Your task to perform on an android device: Search for macbook pro on walmart, select the first entry, add it to the cart, then select checkout. Image 0: 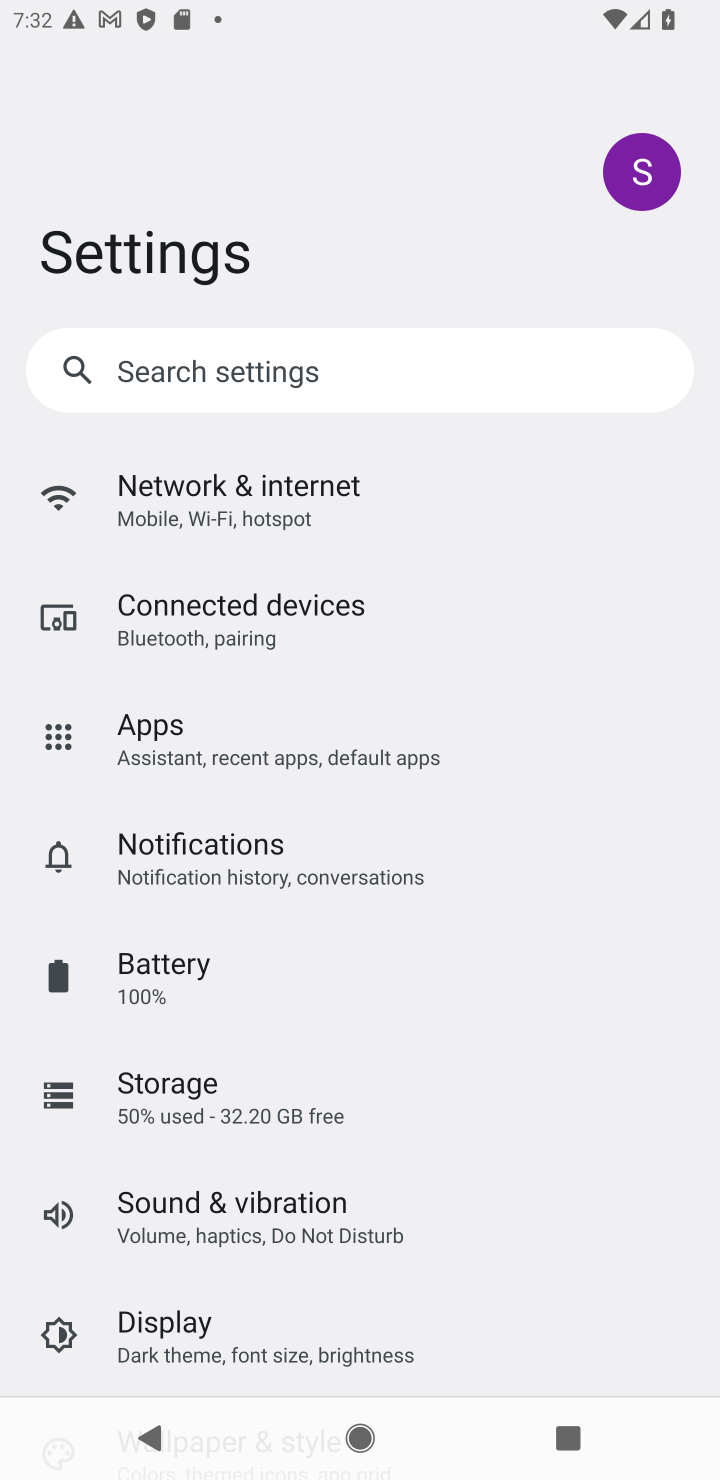
Step 0: press home button
Your task to perform on an android device: Search for macbook pro on walmart, select the first entry, add it to the cart, then select checkout. Image 1: 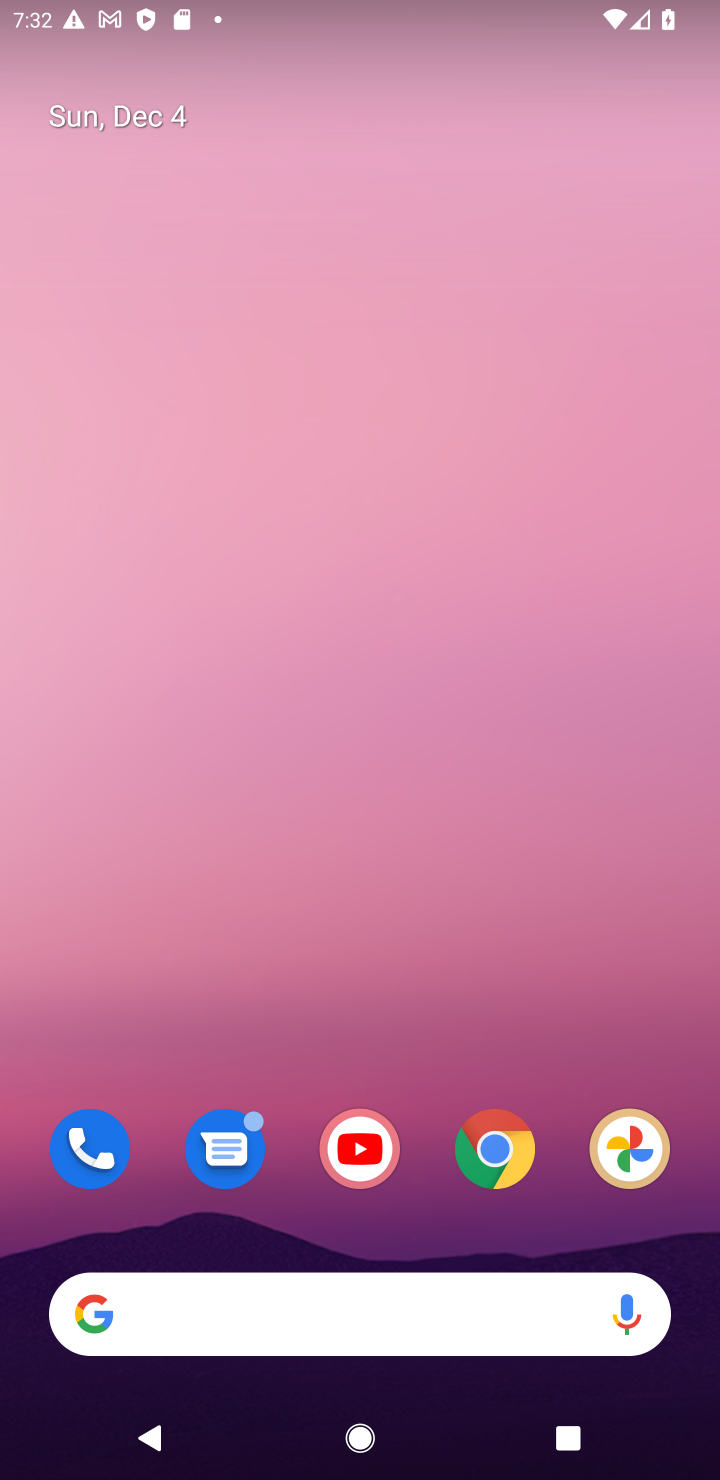
Step 1: drag from (463, 1112) to (414, 596)
Your task to perform on an android device: Search for macbook pro on walmart, select the first entry, add it to the cart, then select checkout. Image 2: 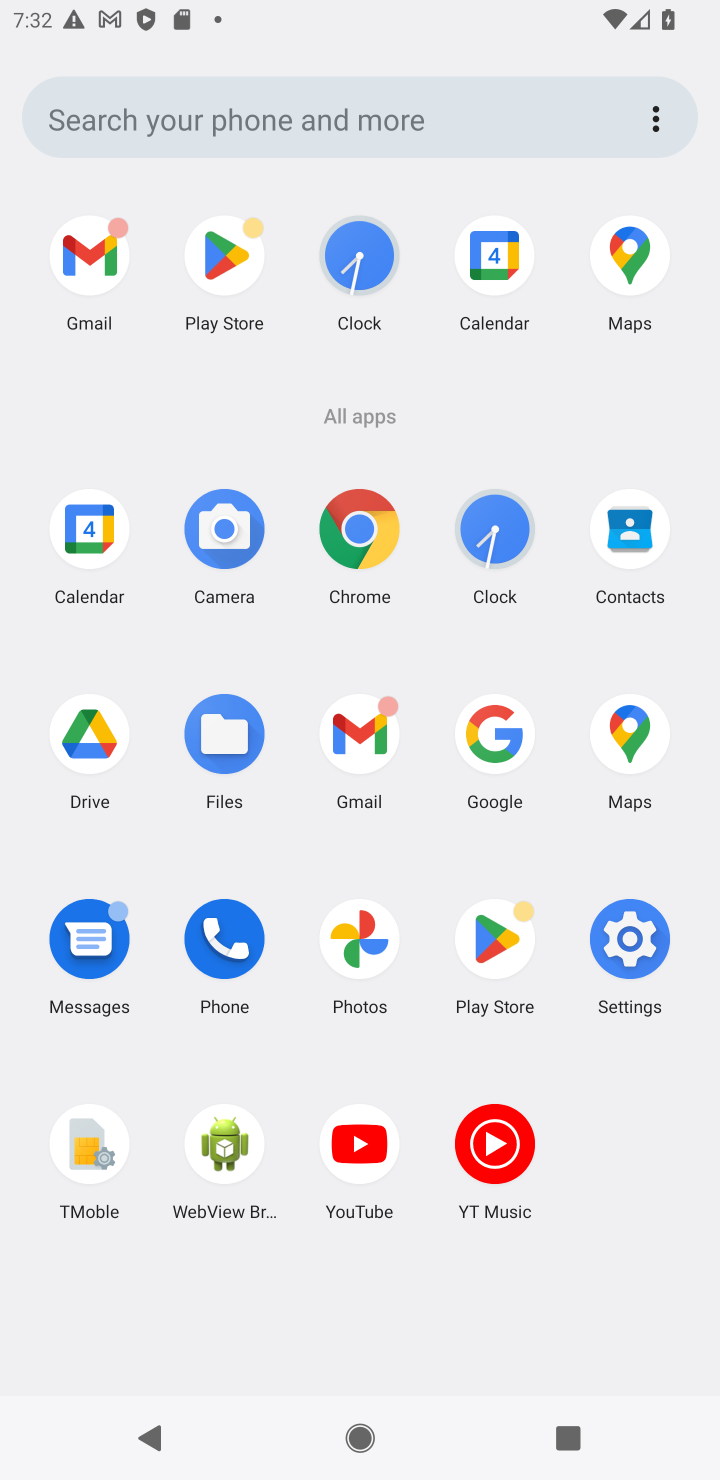
Step 2: click (500, 732)
Your task to perform on an android device: Search for macbook pro on walmart, select the first entry, add it to the cart, then select checkout. Image 3: 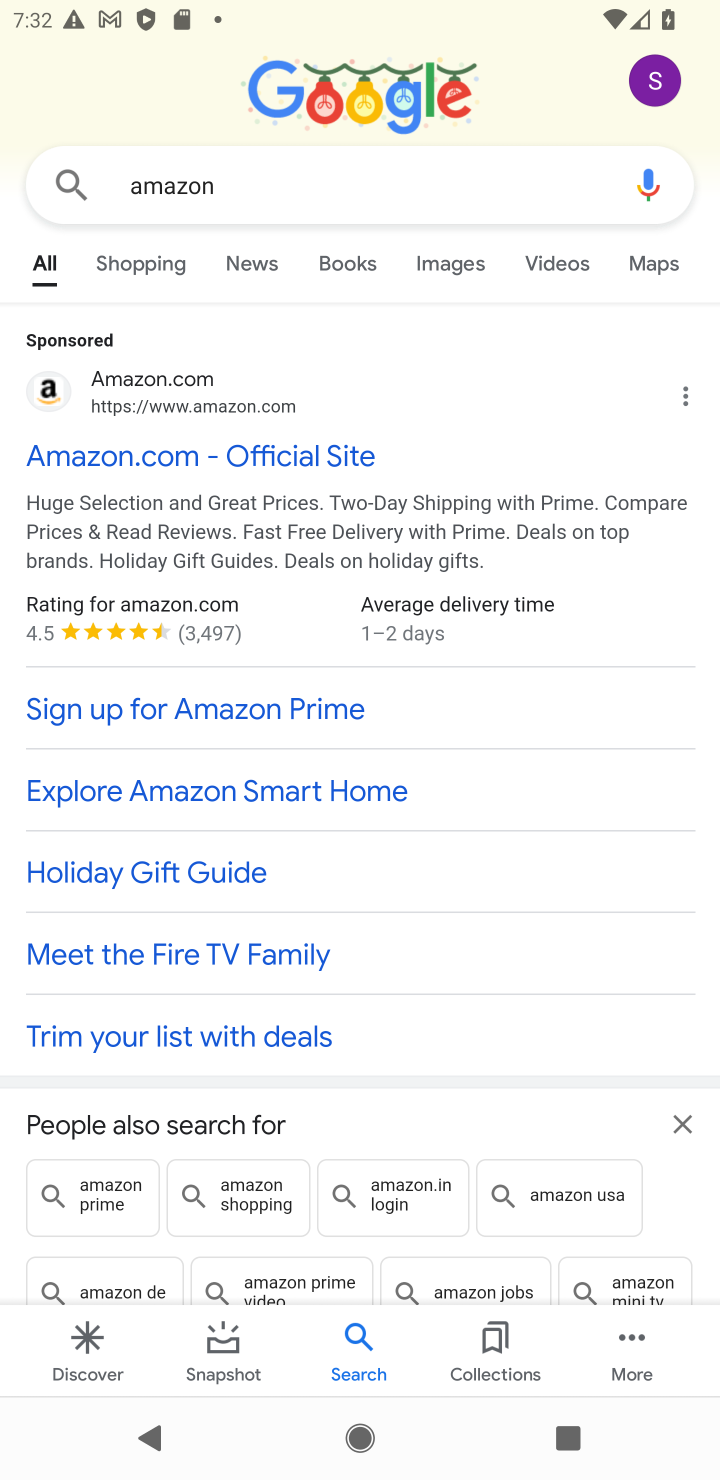
Step 3: click (299, 181)
Your task to perform on an android device: Search for macbook pro on walmart, select the first entry, add it to the cart, then select checkout. Image 4: 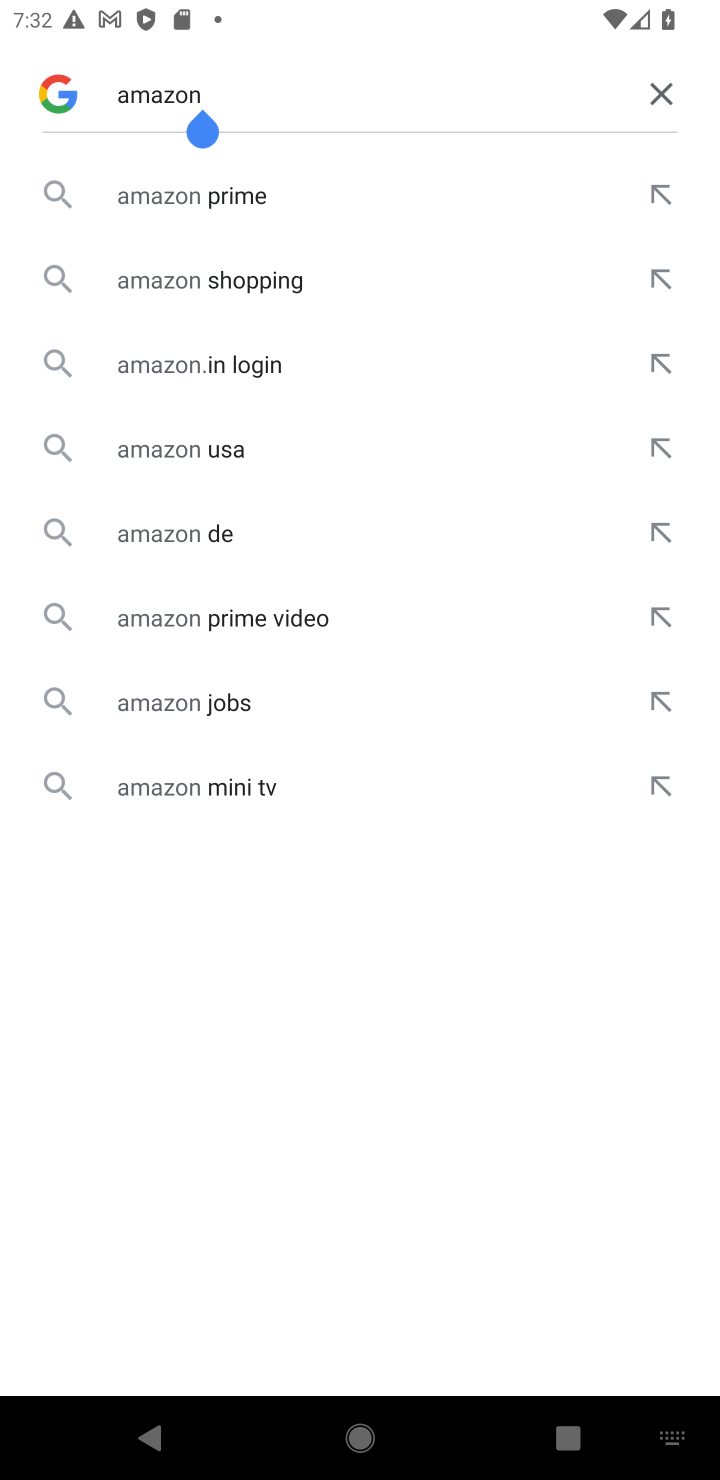
Step 4: click (659, 103)
Your task to perform on an android device: Search for macbook pro on walmart, select the first entry, add it to the cart, then select checkout. Image 5: 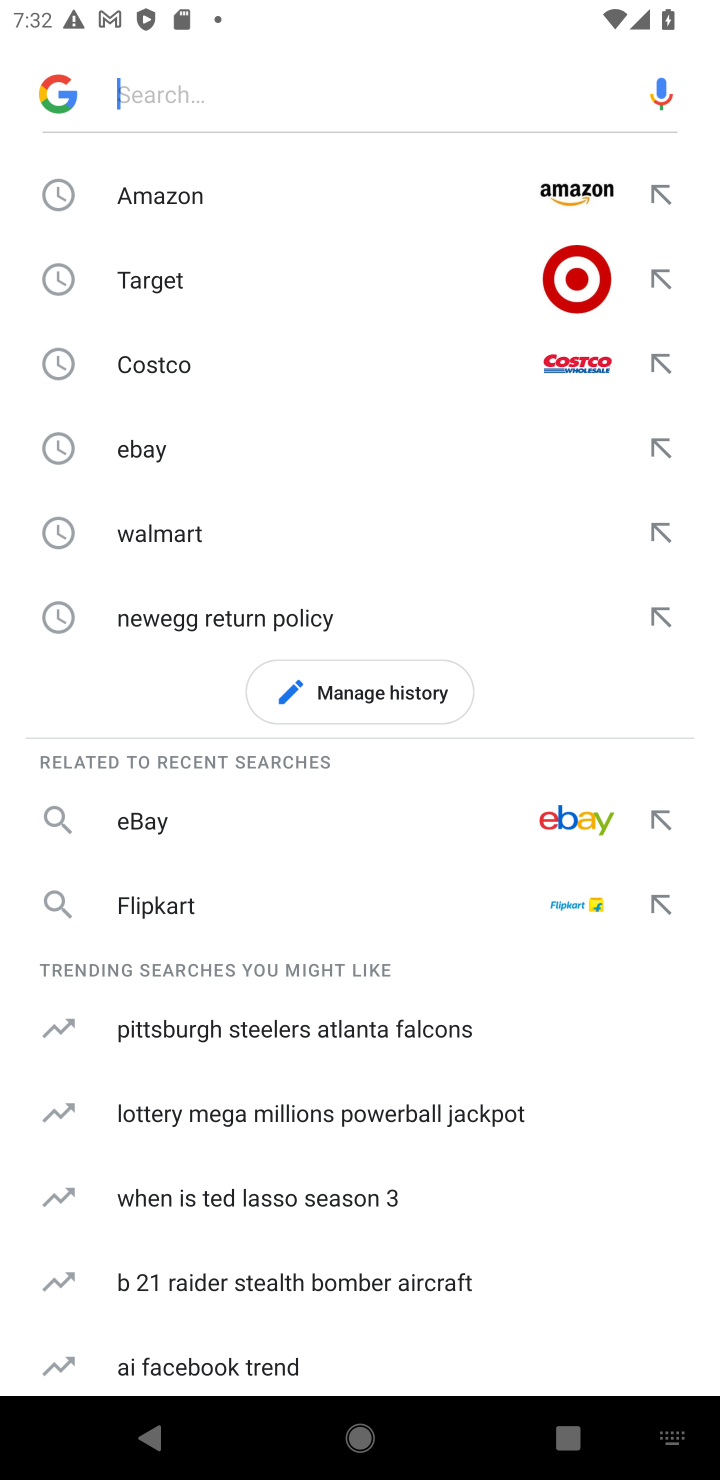
Step 5: click (159, 531)
Your task to perform on an android device: Search for macbook pro on walmart, select the first entry, add it to the cart, then select checkout. Image 6: 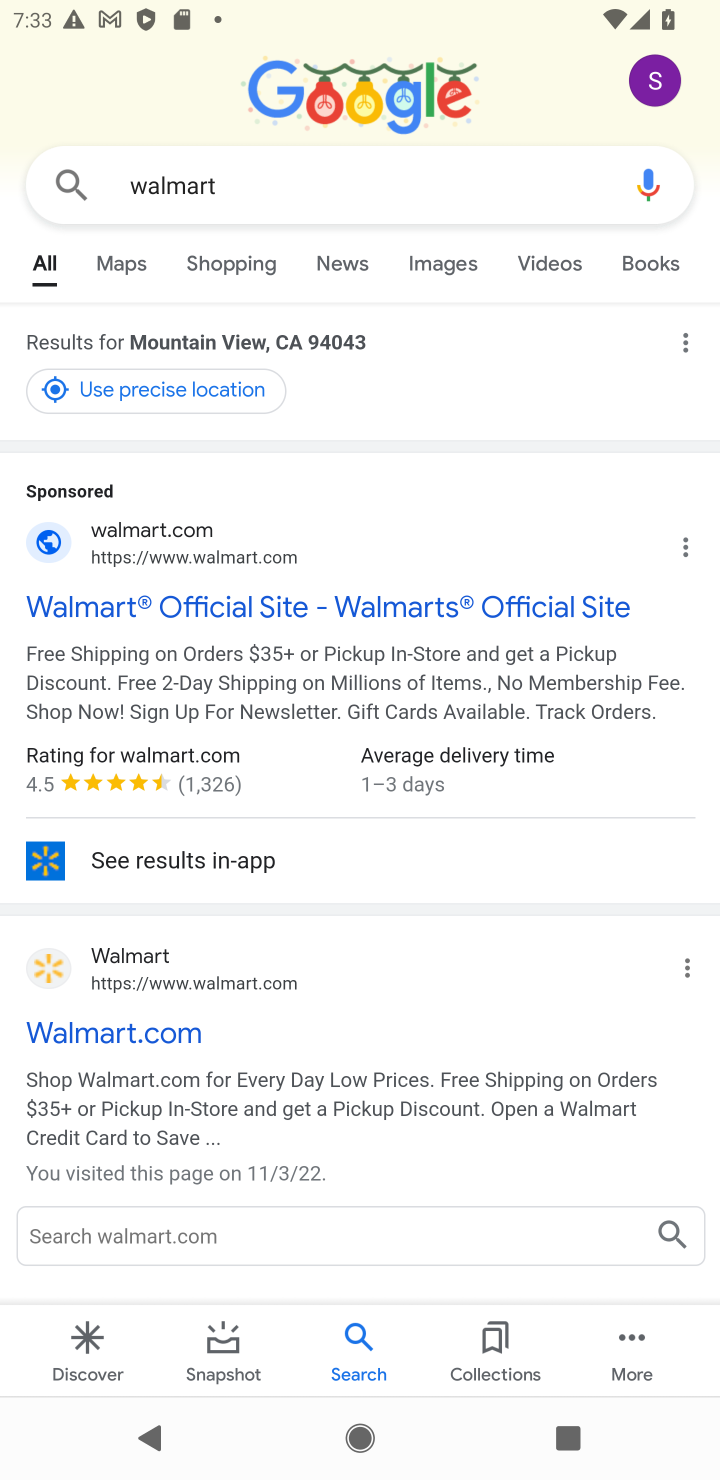
Step 6: click (239, 622)
Your task to perform on an android device: Search for macbook pro on walmart, select the first entry, add it to the cart, then select checkout. Image 7: 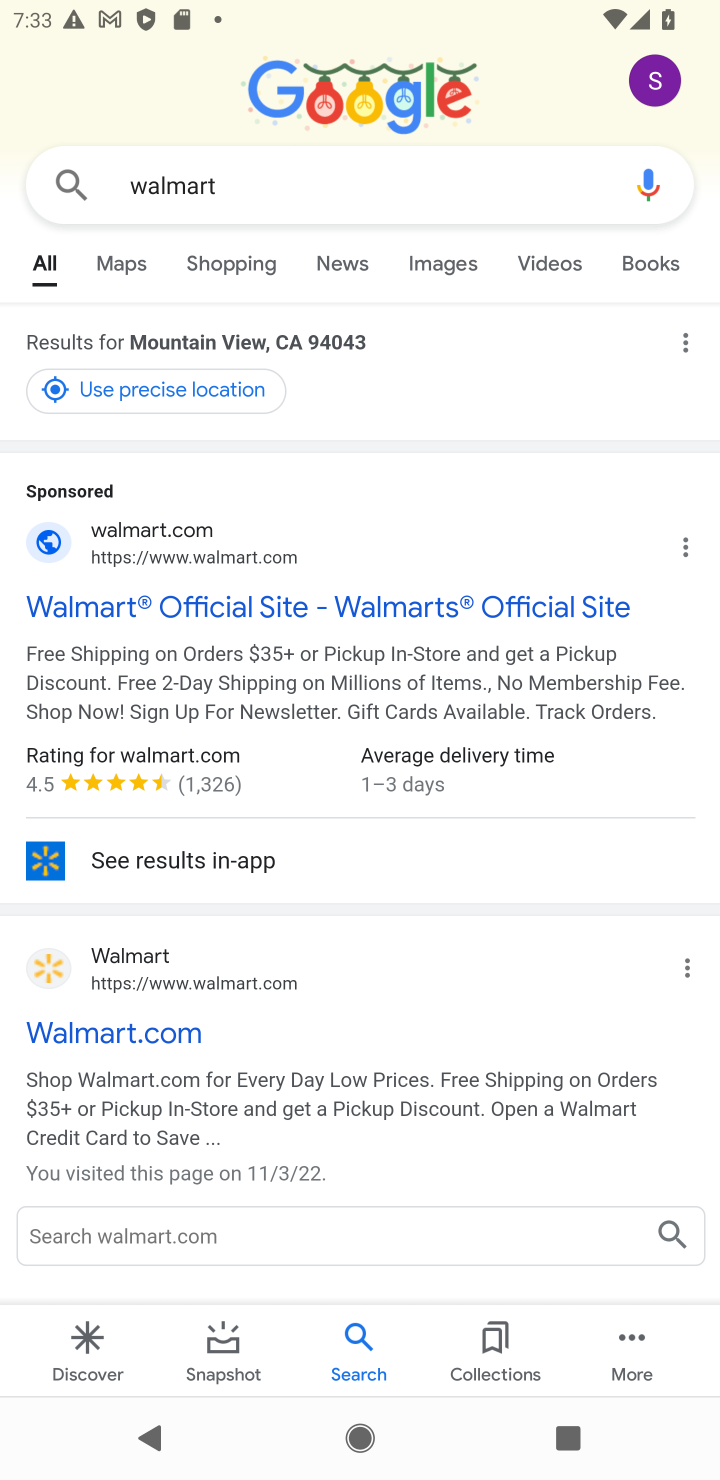
Step 7: click (110, 1035)
Your task to perform on an android device: Search for macbook pro on walmart, select the first entry, add it to the cart, then select checkout. Image 8: 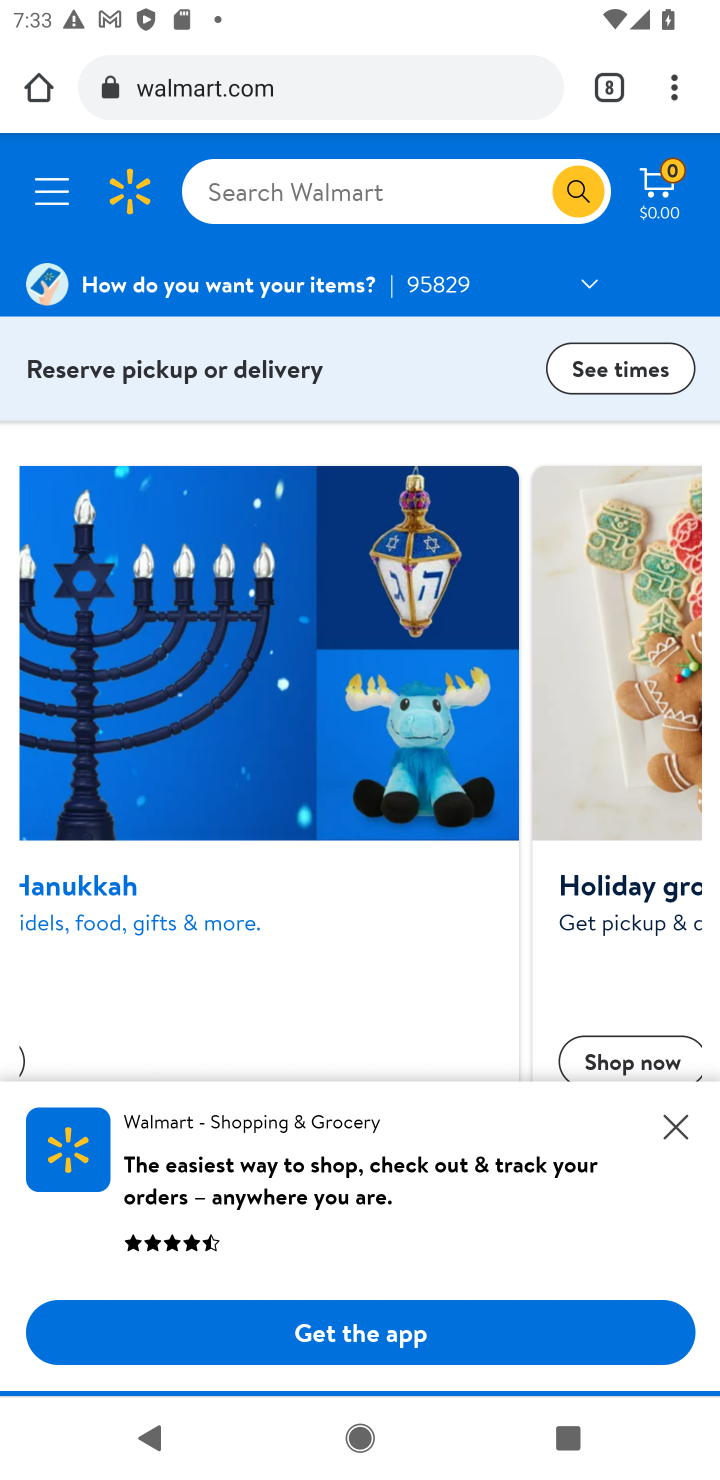
Step 8: click (282, 201)
Your task to perform on an android device: Search for macbook pro on walmart, select the first entry, add it to the cart, then select checkout. Image 9: 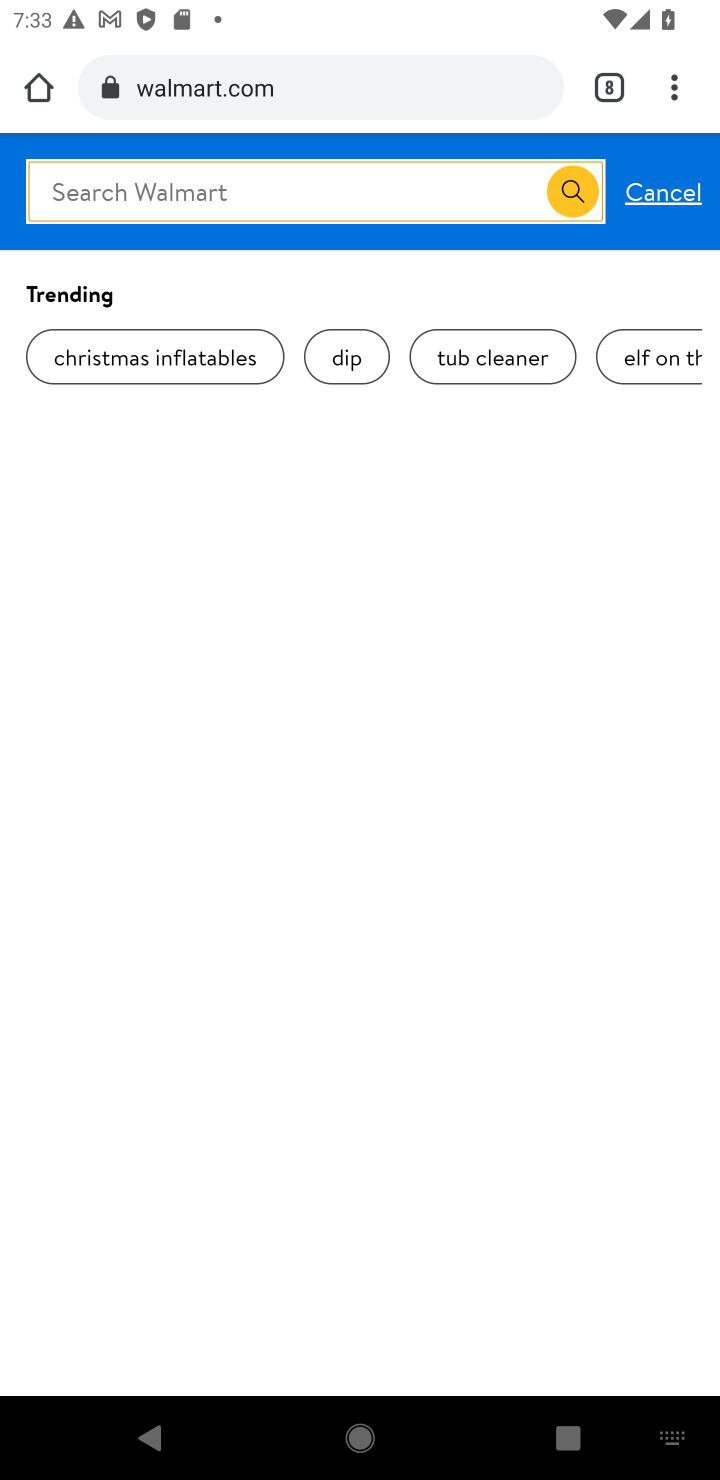
Step 9: type "macbook pro"
Your task to perform on an android device: Search for macbook pro on walmart, select the first entry, add it to the cart, then select checkout. Image 10: 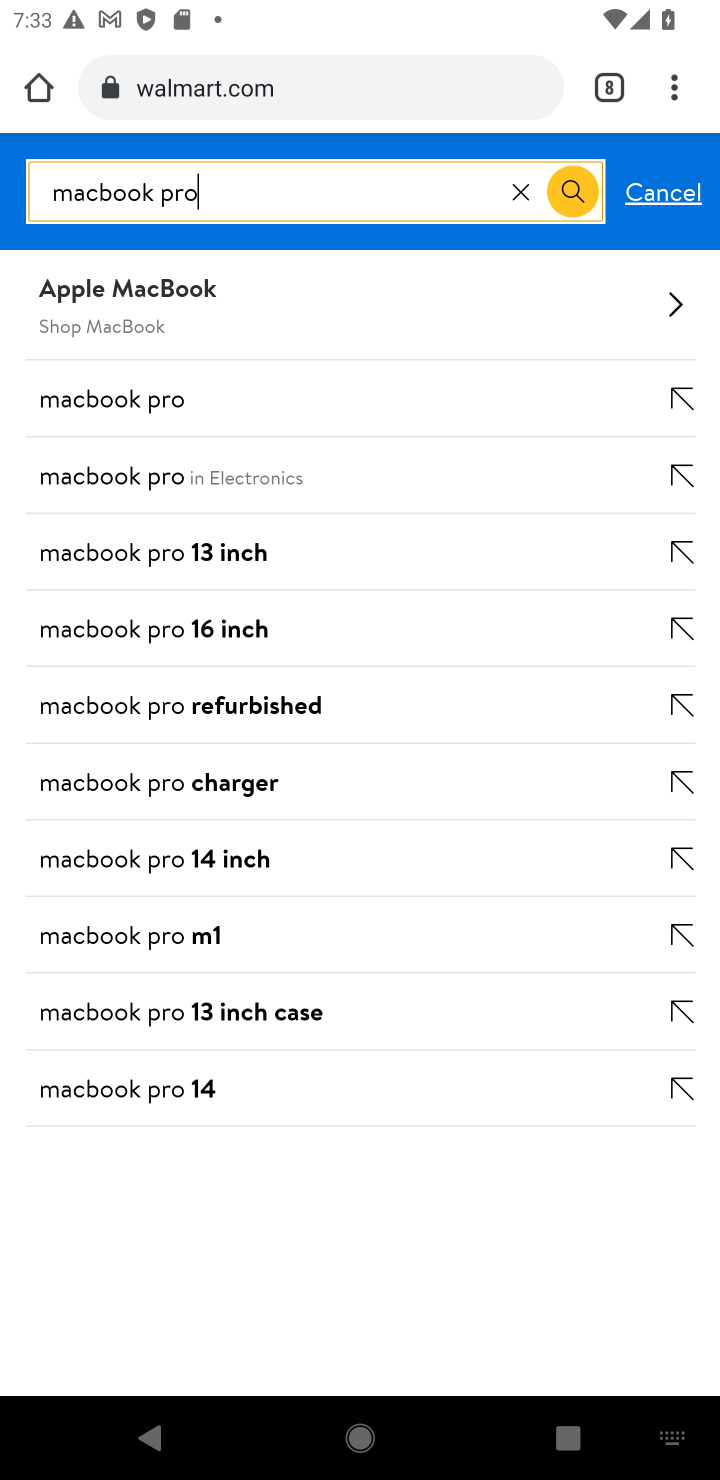
Step 10: click (151, 402)
Your task to perform on an android device: Search for macbook pro on walmart, select the first entry, add it to the cart, then select checkout. Image 11: 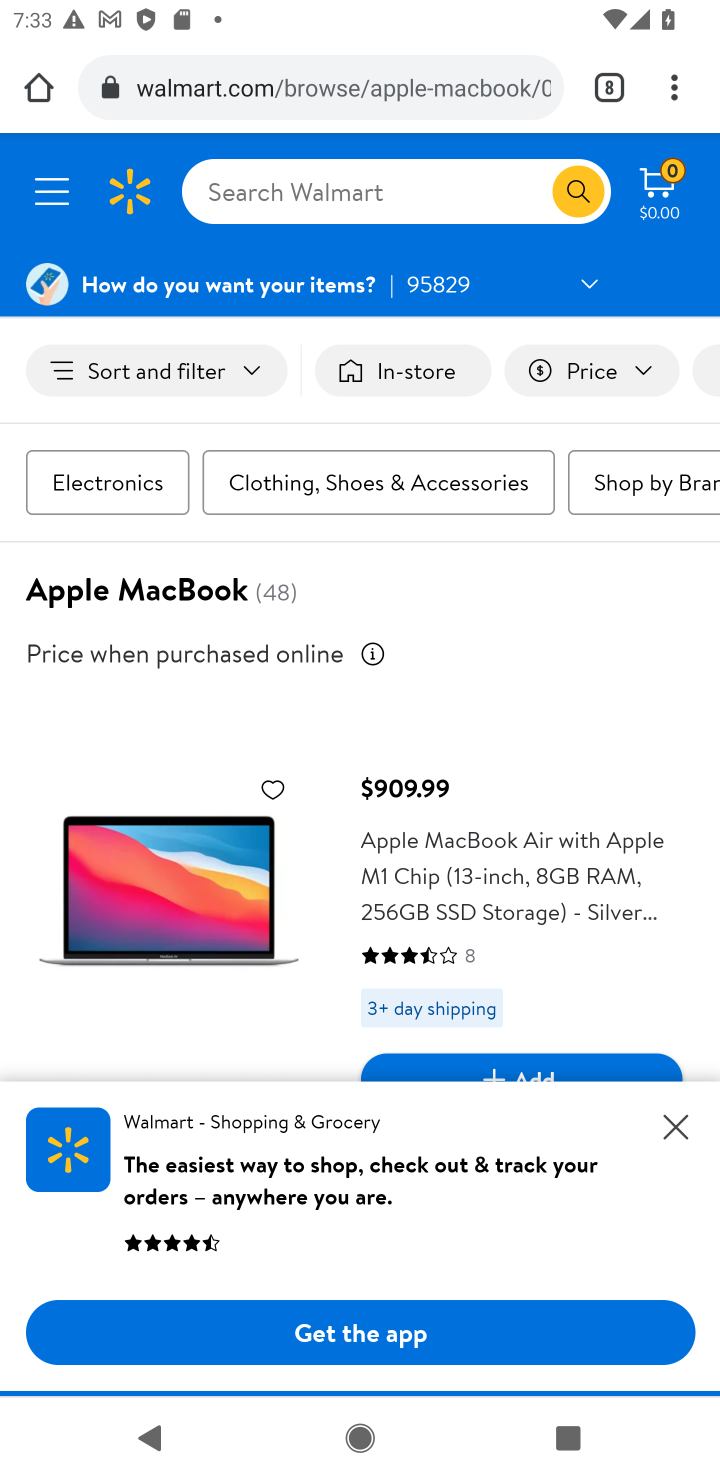
Step 11: drag from (485, 1026) to (436, 465)
Your task to perform on an android device: Search for macbook pro on walmart, select the first entry, add it to the cart, then select checkout. Image 12: 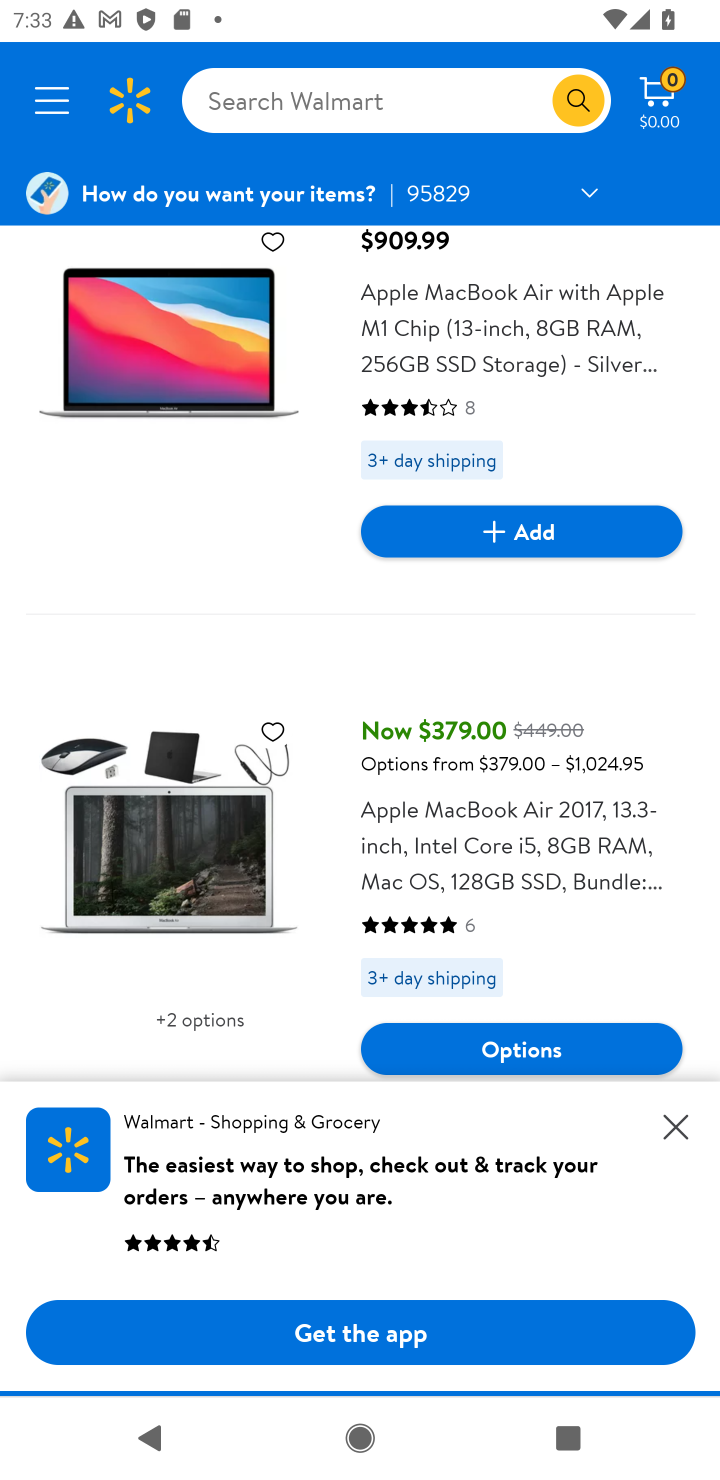
Step 12: click (505, 526)
Your task to perform on an android device: Search for macbook pro on walmart, select the first entry, add it to the cart, then select checkout. Image 13: 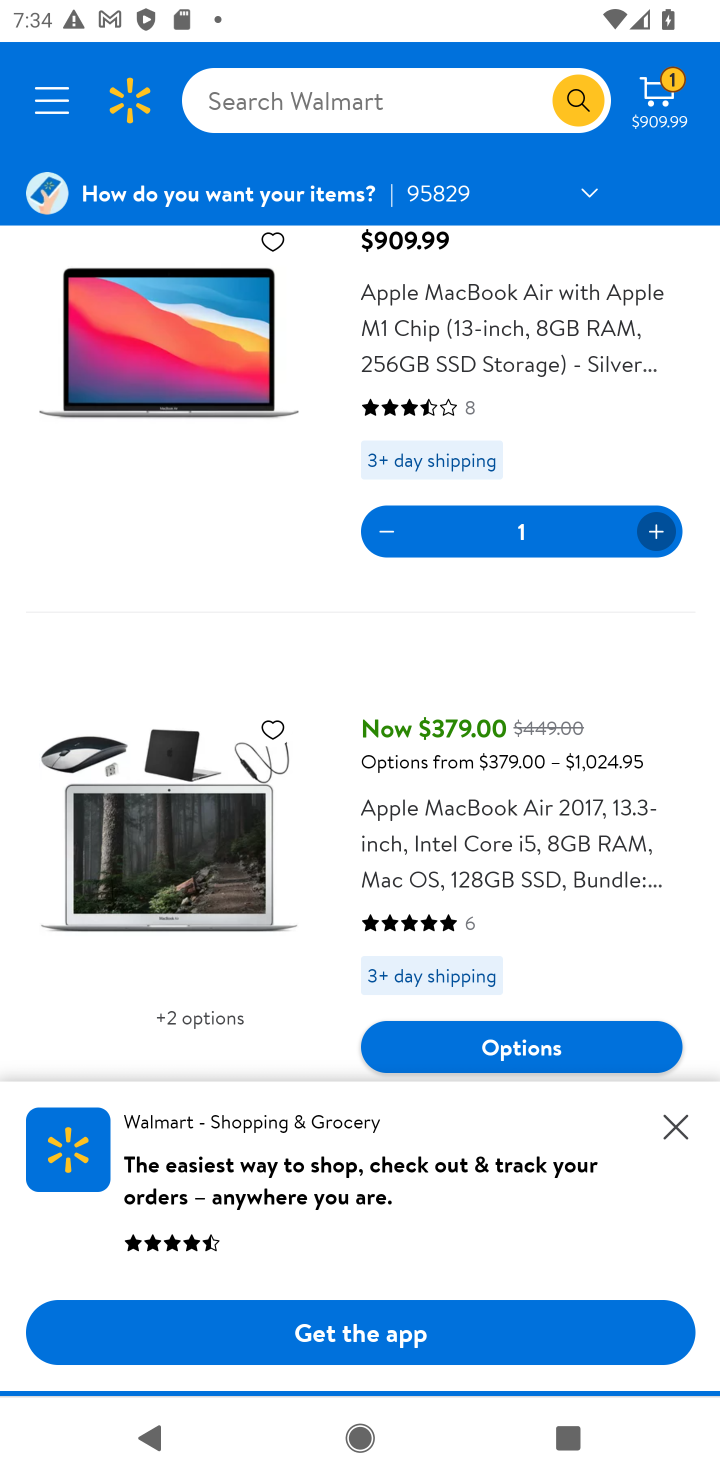
Step 13: click (651, 105)
Your task to perform on an android device: Search for macbook pro on walmart, select the first entry, add it to the cart, then select checkout. Image 14: 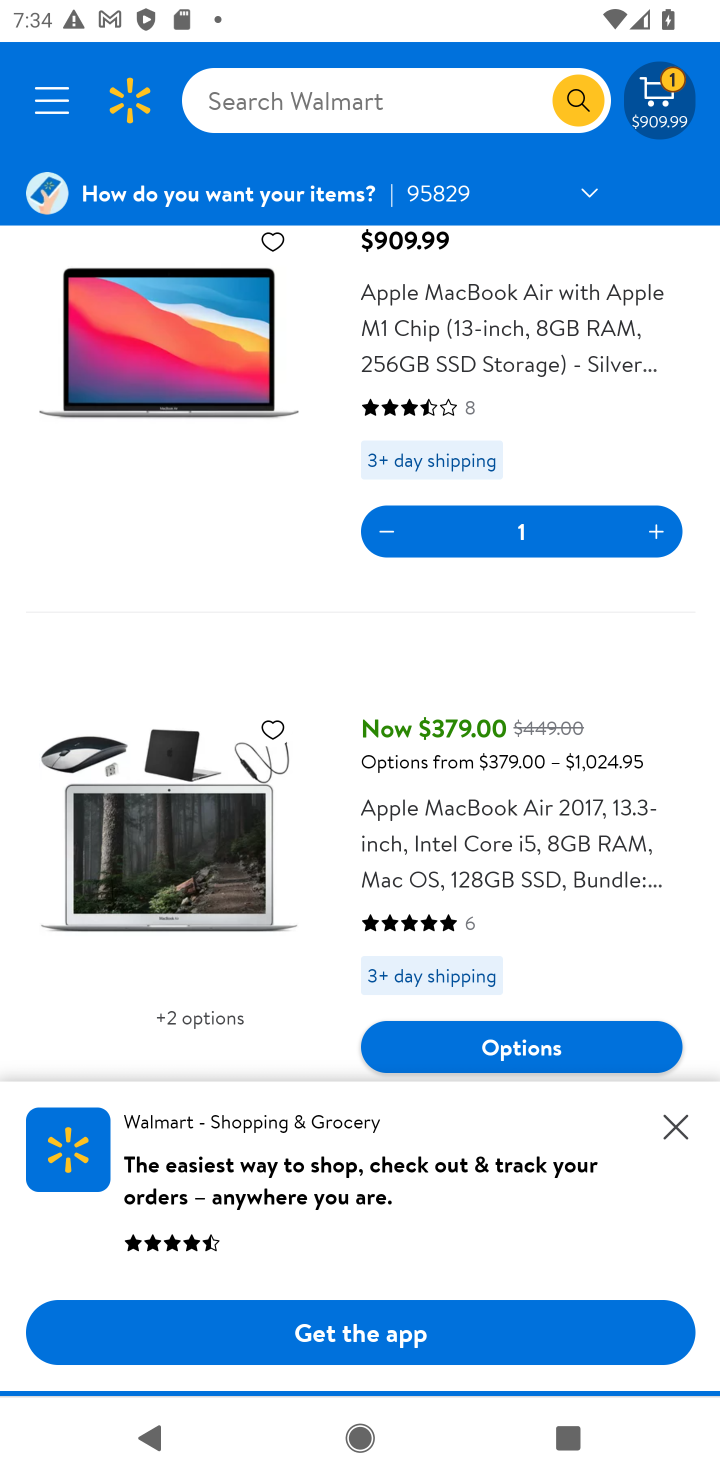
Step 14: click (663, 100)
Your task to perform on an android device: Search for macbook pro on walmart, select the first entry, add it to the cart, then select checkout. Image 15: 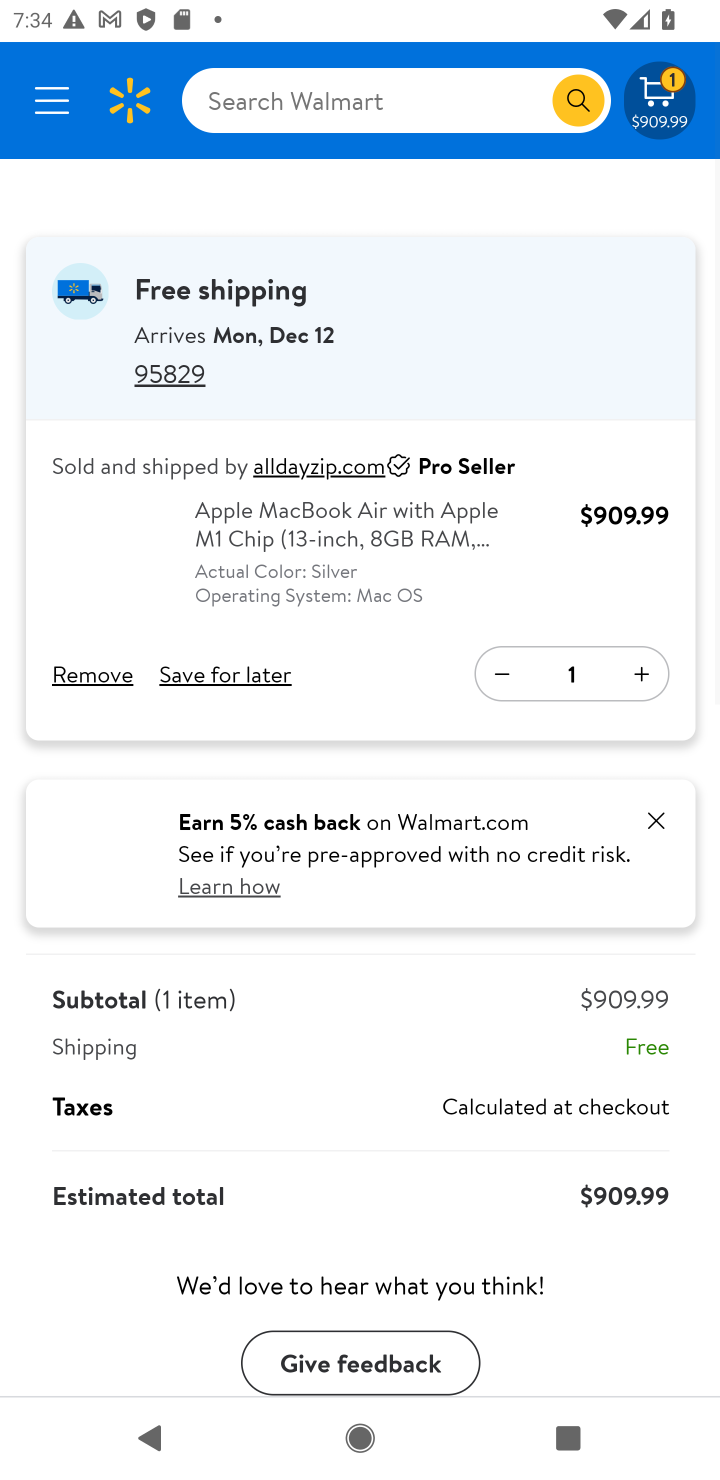
Step 15: drag from (348, 1209) to (405, 454)
Your task to perform on an android device: Search for macbook pro on walmart, select the first entry, add it to the cart, then select checkout. Image 16: 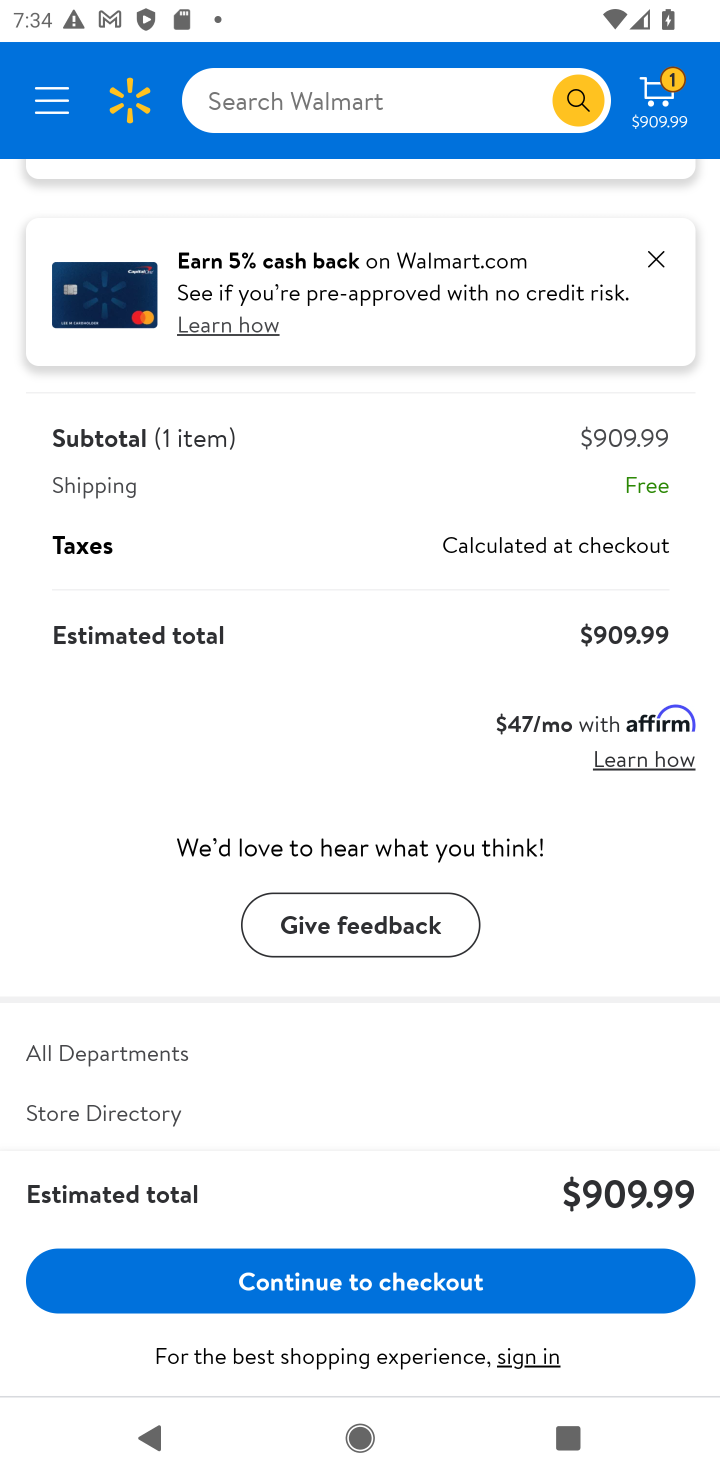
Step 16: click (412, 1273)
Your task to perform on an android device: Search for macbook pro on walmart, select the first entry, add it to the cart, then select checkout. Image 17: 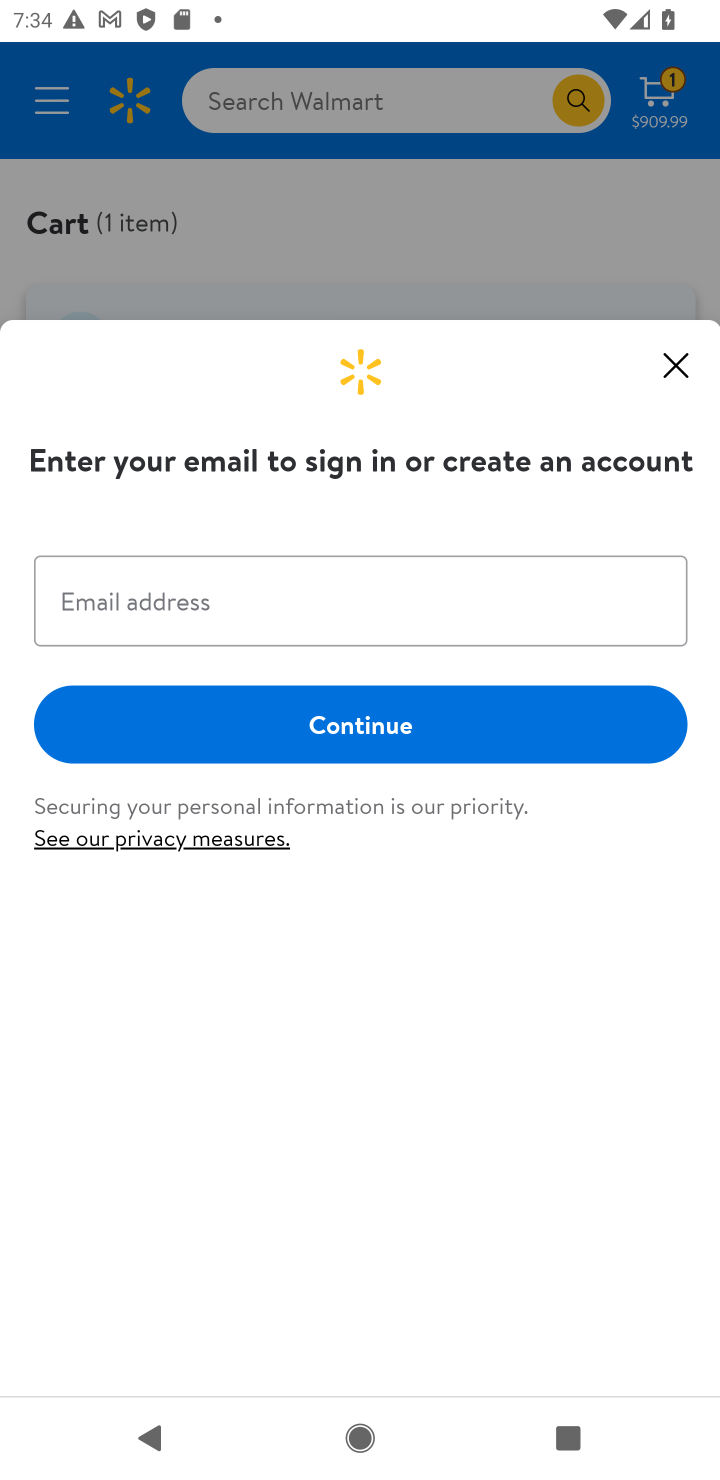
Step 17: task complete